Your task to perform on an android device: search for starred emails in the gmail app Image 0: 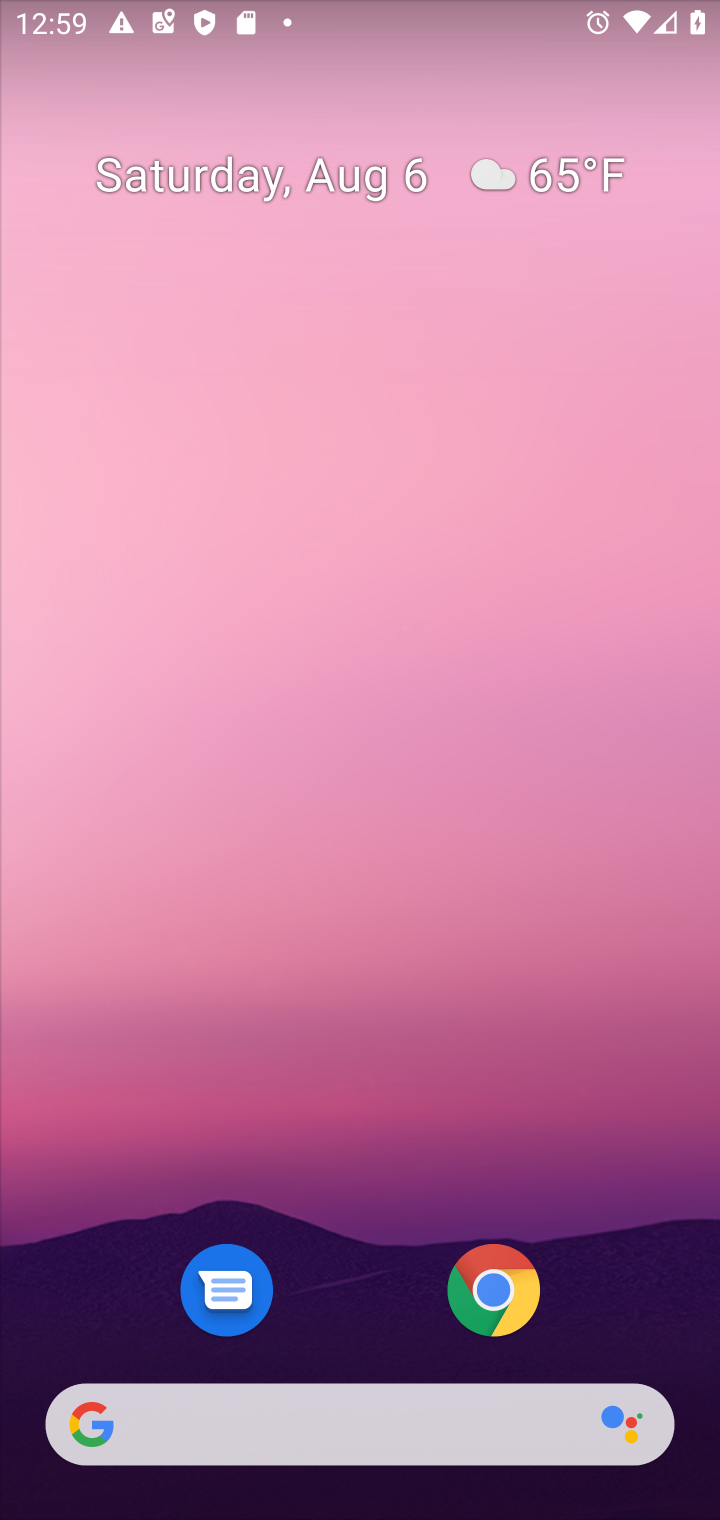
Step 0: drag from (356, 1328) to (407, 267)
Your task to perform on an android device: search for starred emails in the gmail app Image 1: 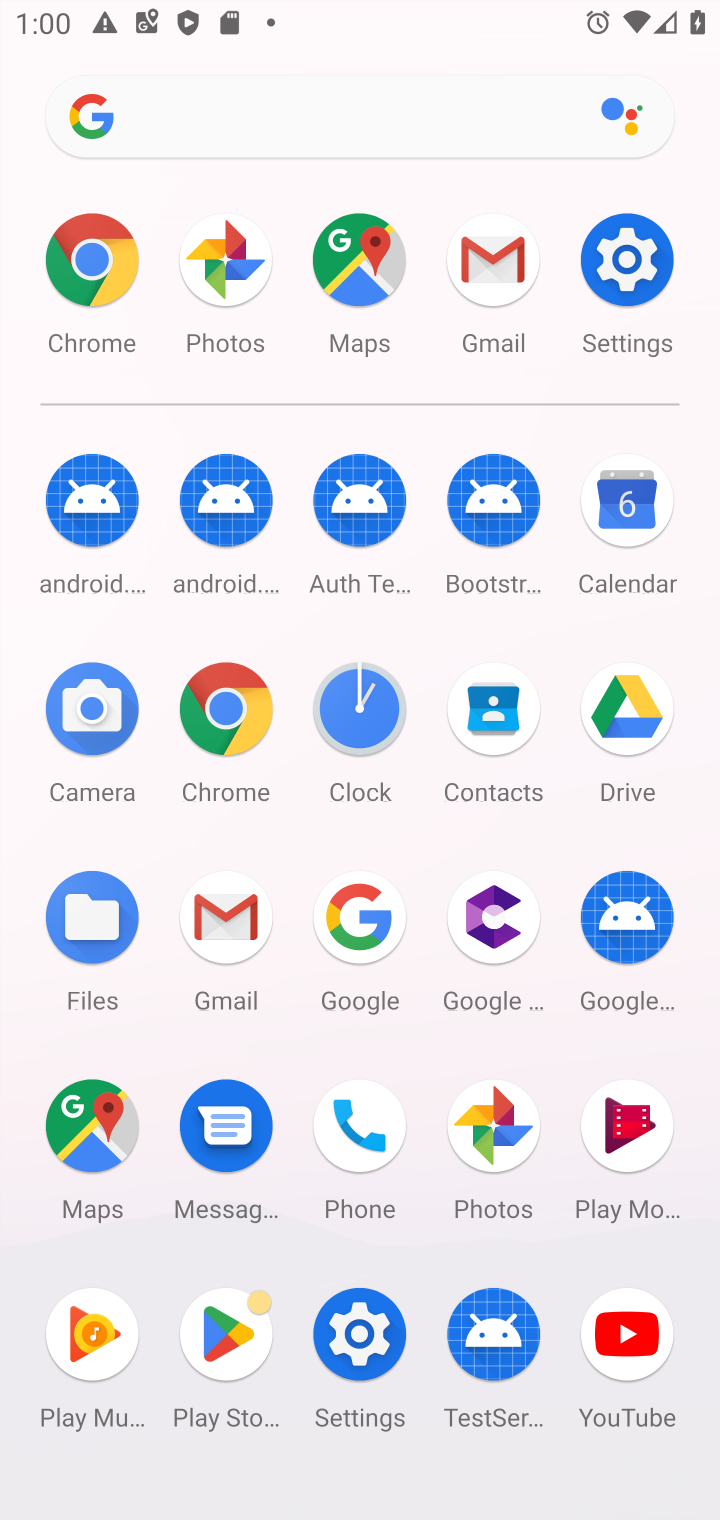
Step 1: click (218, 891)
Your task to perform on an android device: search for starred emails in the gmail app Image 2: 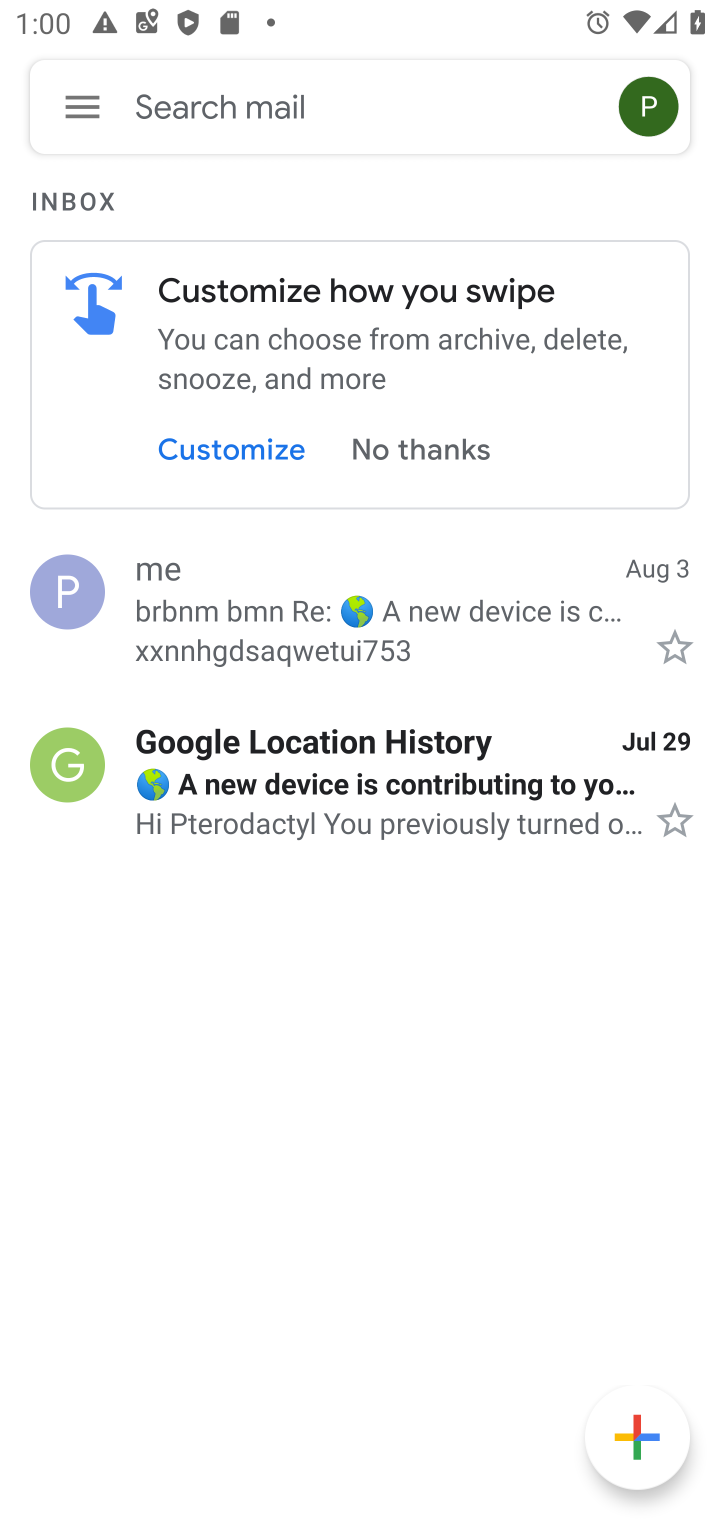
Step 2: click (78, 105)
Your task to perform on an android device: search for starred emails in the gmail app Image 3: 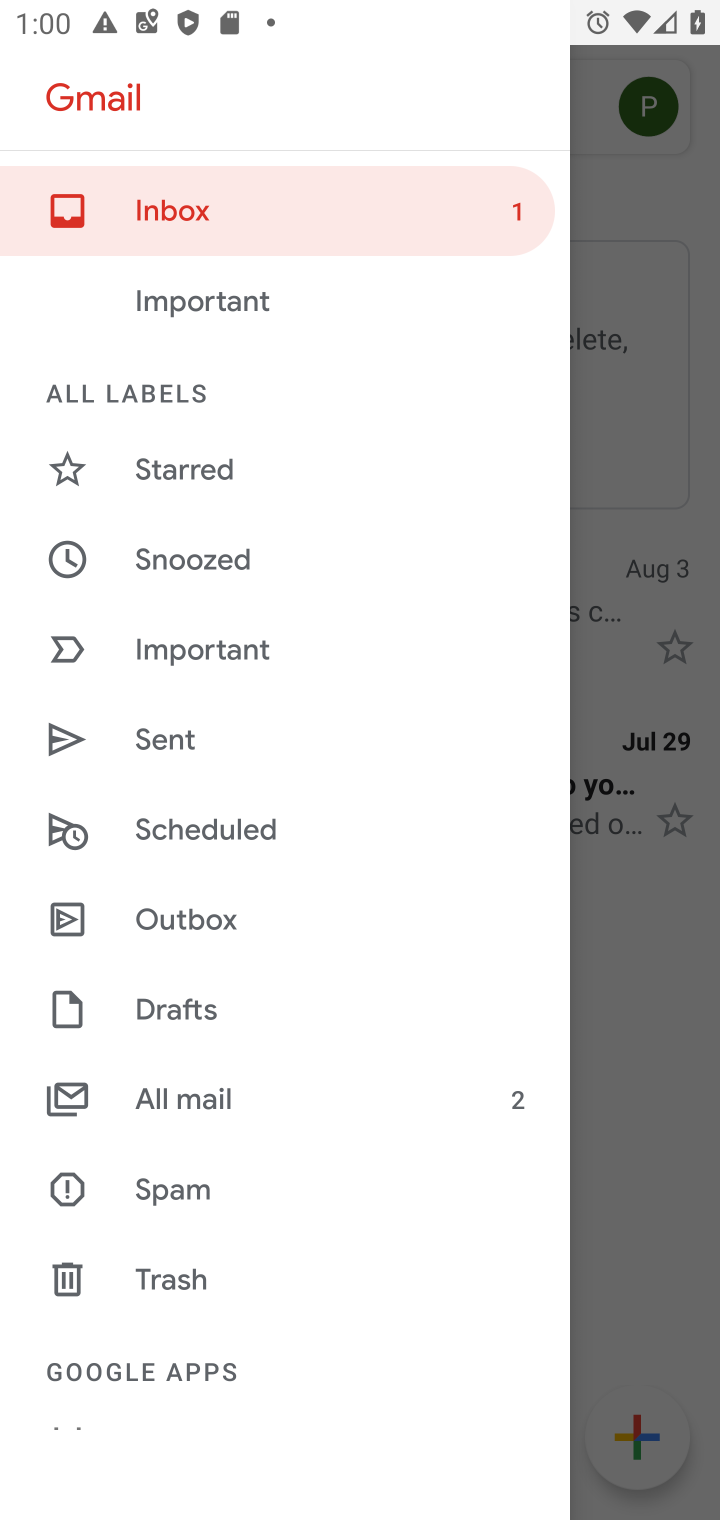
Step 3: click (194, 457)
Your task to perform on an android device: search for starred emails in the gmail app Image 4: 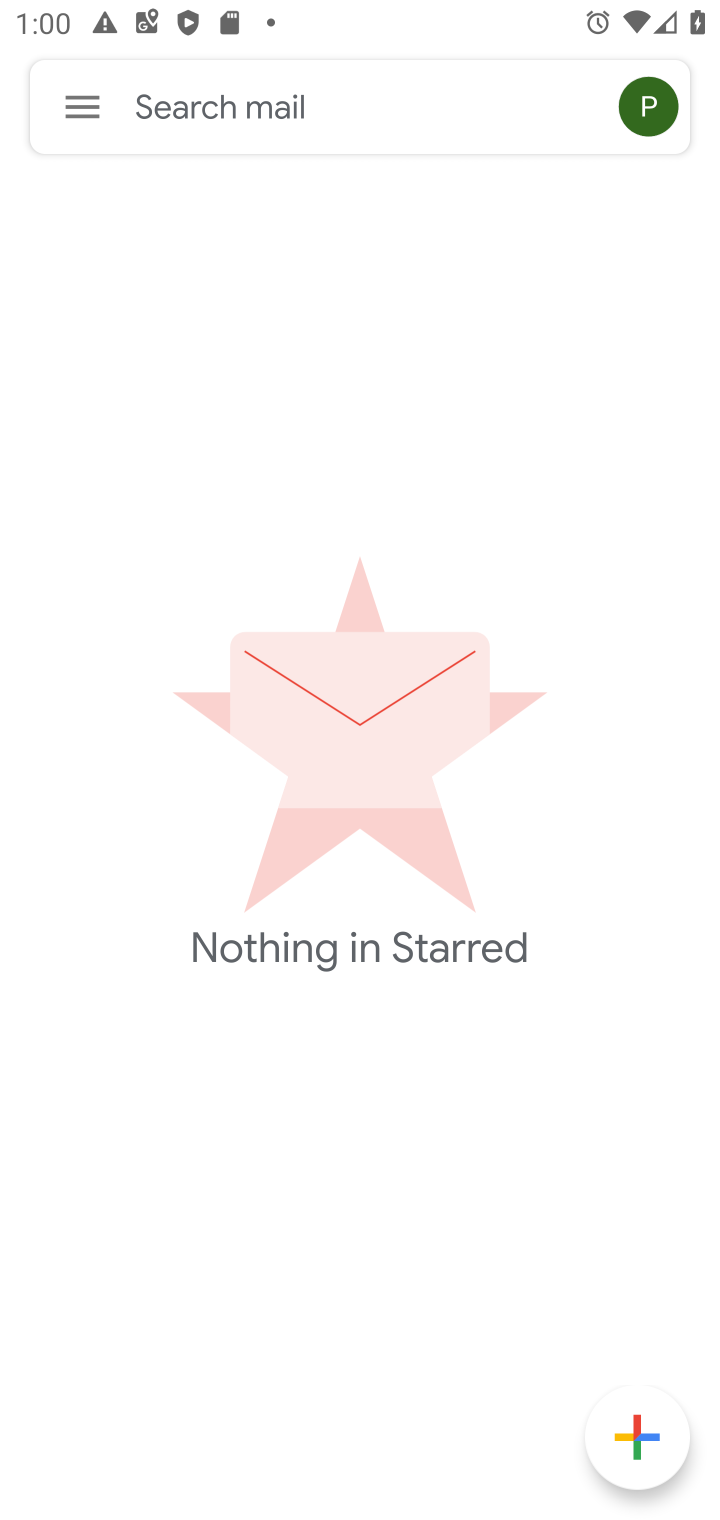
Step 4: task complete